Your task to perform on an android device: Open the map Image 0: 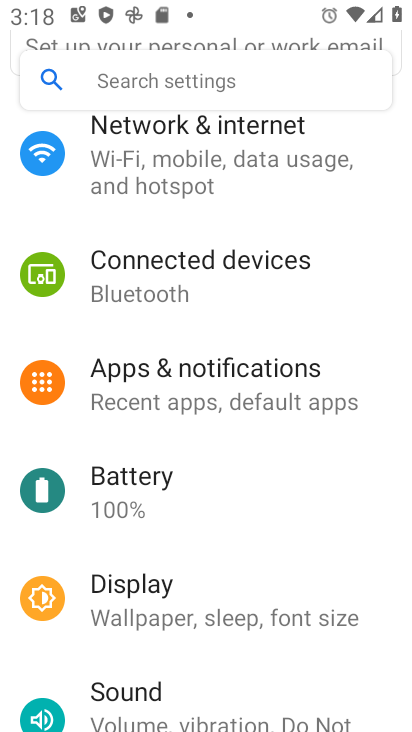
Step 0: press home button
Your task to perform on an android device: Open the map Image 1: 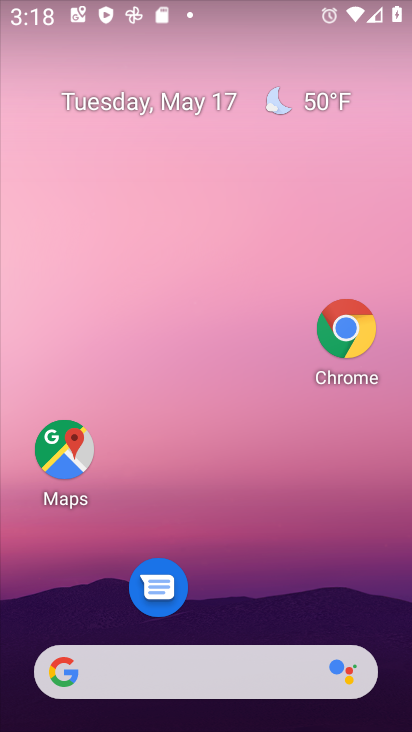
Step 1: drag from (290, 578) to (266, 86)
Your task to perform on an android device: Open the map Image 2: 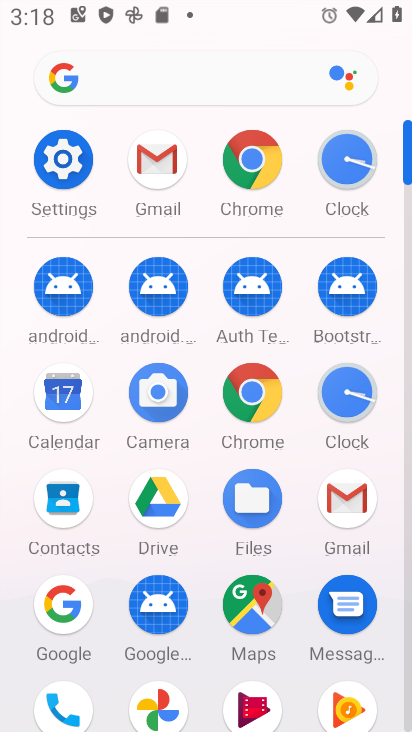
Step 2: click (252, 621)
Your task to perform on an android device: Open the map Image 3: 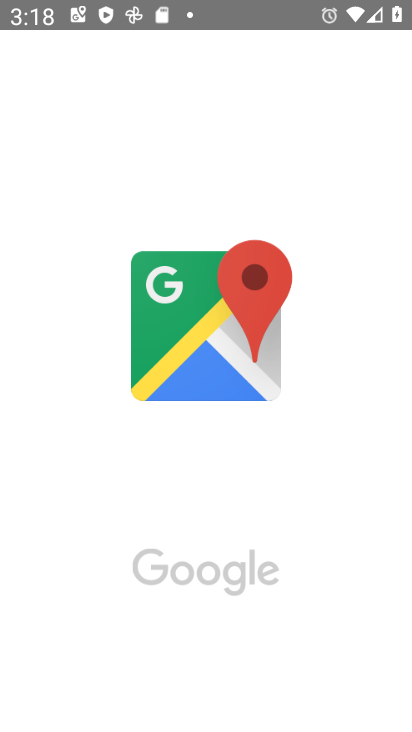
Step 3: task complete